Your task to perform on an android device: open app "Spotify" (install if not already installed) Image 0: 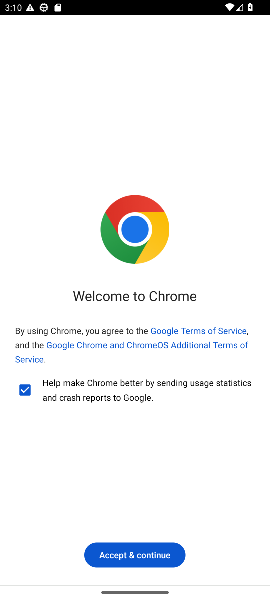
Step 0: press home button
Your task to perform on an android device: open app "Spotify" (install if not already installed) Image 1: 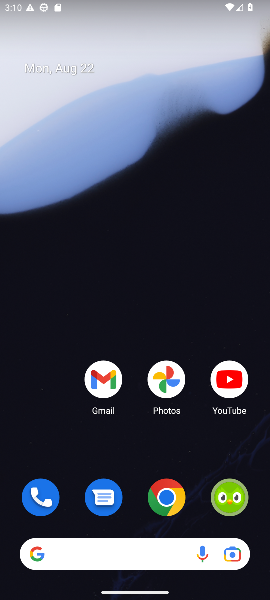
Step 1: drag from (143, 449) to (152, 69)
Your task to perform on an android device: open app "Spotify" (install if not already installed) Image 2: 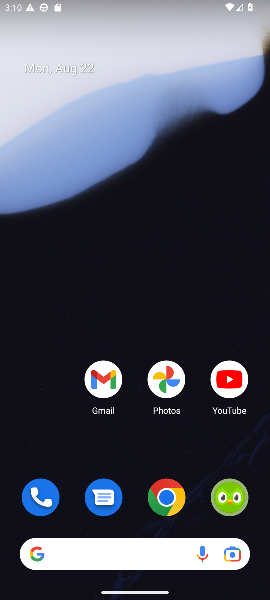
Step 2: drag from (156, 447) to (161, 72)
Your task to perform on an android device: open app "Spotify" (install if not already installed) Image 3: 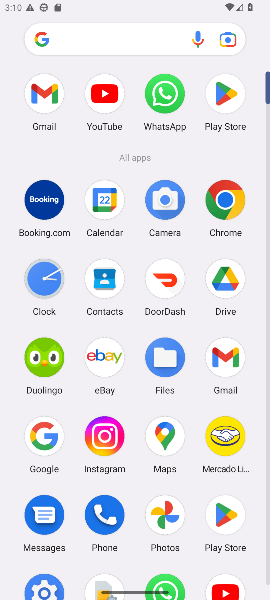
Step 3: click (212, 87)
Your task to perform on an android device: open app "Spotify" (install if not already installed) Image 4: 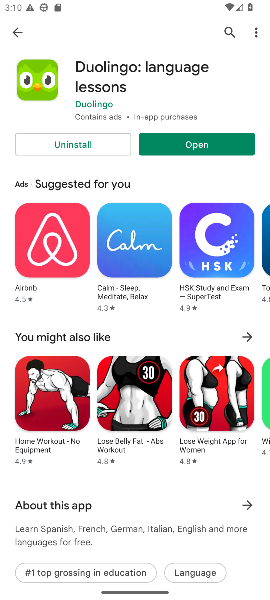
Step 4: click (222, 31)
Your task to perform on an android device: open app "Spotify" (install if not already installed) Image 5: 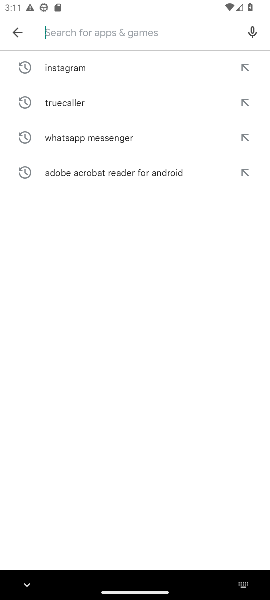
Step 5: type "Spotify"
Your task to perform on an android device: open app "Spotify" (install if not already installed) Image 6: 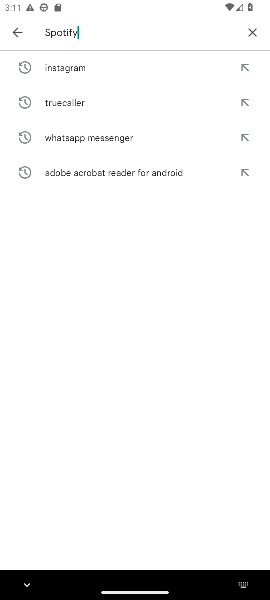
Step 6: type ""
Your task to perform on an android device: open app "Spotify" (install if not already installed) Image 7: 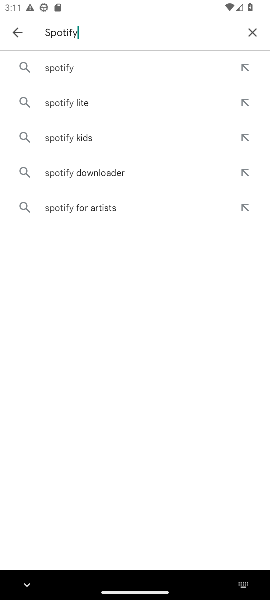
Step 7: click (76, 66)
Your task to perform on an android device: open app "Spotify" (install if not already installed) Image 8: 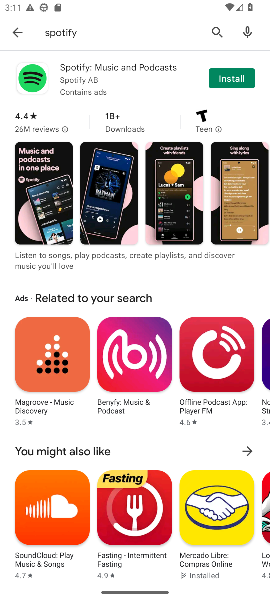
Step 8: click (235, 69)
Your task to perform on an android device: open app "Spotify" (install if not already installed) Image 9: 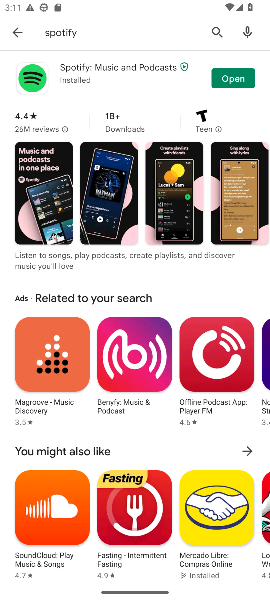
Step 9: click (235, 69)
Your task to perform on an android device: open app "Spotify" (install if not already installed) Image 10: 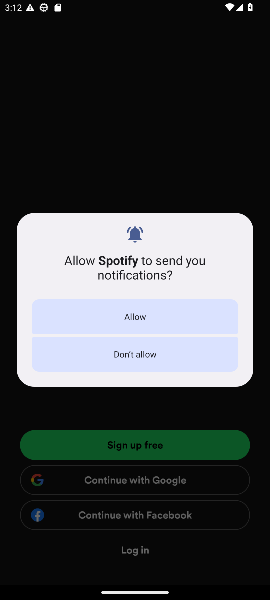
Step 10: click (169, 308)
Your task to perform on an android device: open app "Spotify" (install if not already installed) Image 11: 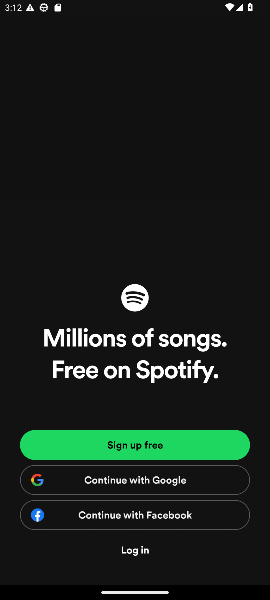
Step 11: task complete